Your task to perform on an android device: Open calendar and show me the fourth week of next month Image 0: 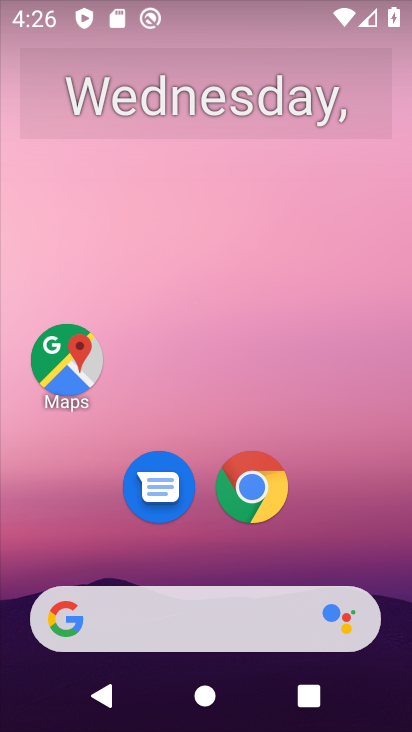
Step 0: press home button
Your task to perform on an android device: Open calendar and show me the fourth week of next month Image 1: 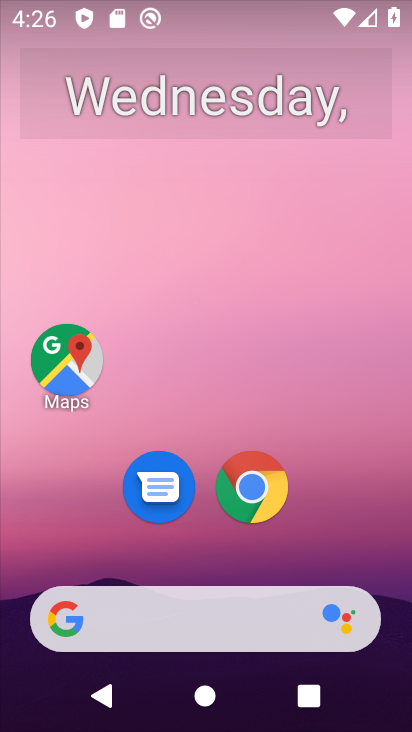
Step 1: press home button
Your task to perform on an android device: Open calendar and show me the fourth week of next month Image 2: 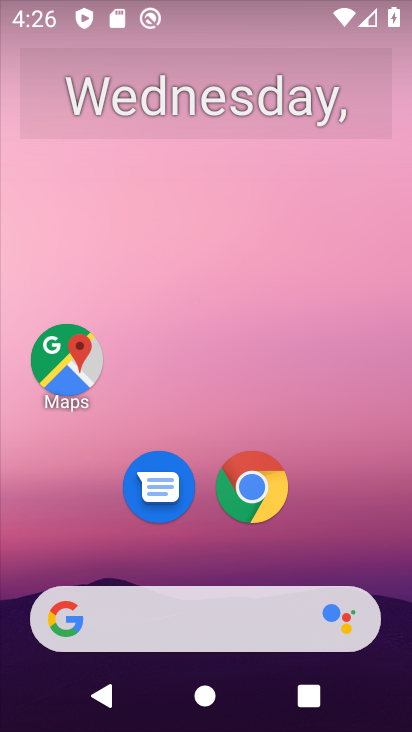
Step 2: drag from (226, 555) to (219, 122)
Your task to perform on an android device: Open calendar and show me the fourth week of next month Image 3: 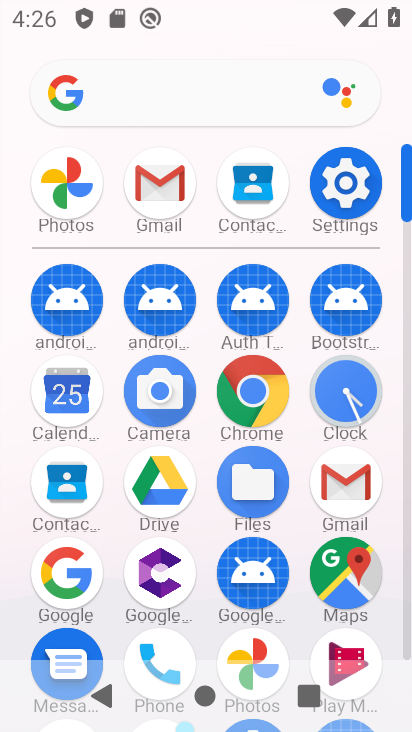
Step 3: click (71, 383)
Your task to perform on an android device: Open calendar and show me the fourth week of next month Image 4: 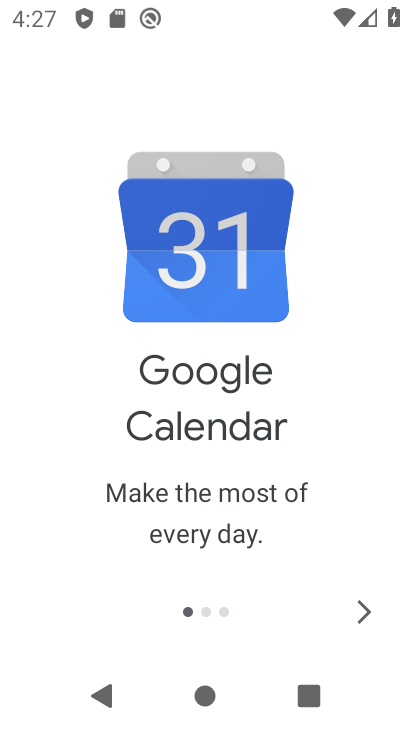
Step 4: click (357, 602)
Your task to perform on an android device: Open calendar and show me the fourth week of next month Image 5: 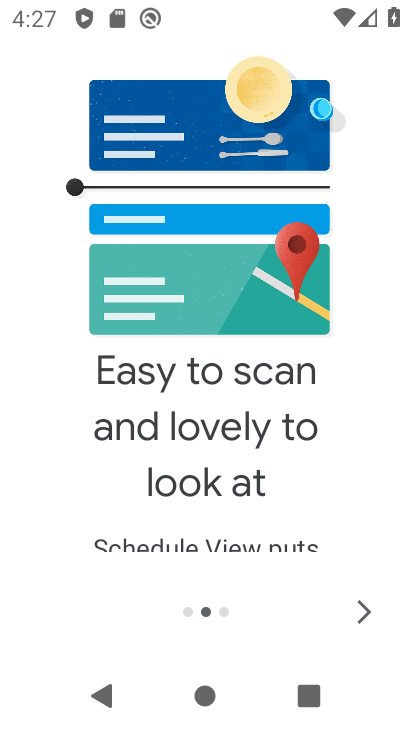
Step 5: click (357, 602)
Your task to perform on an android device: Open calendar and show me the fourth week of next month Image 6: 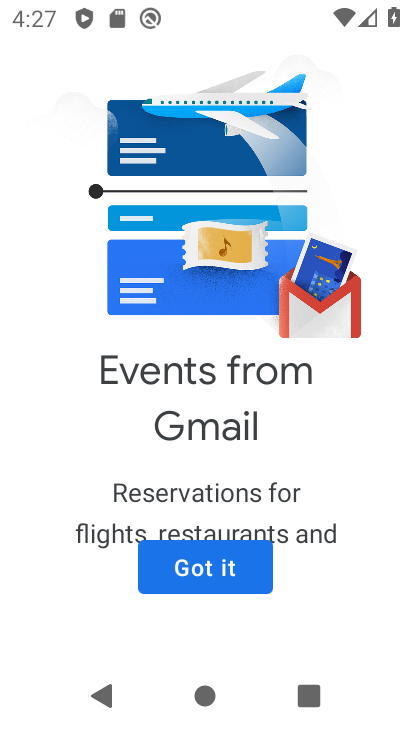
Step 6: click (148, 583)
Your task to perform on an android device: Open calendar and show me the fourth week of next month Image 7: 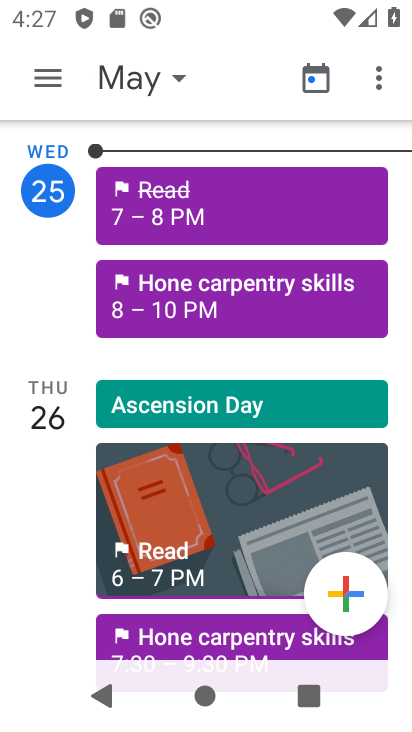
Step 7: click (171, 74)
Your task to perform on an android device: Open calendar and show me the fourth week of next month Image 8: 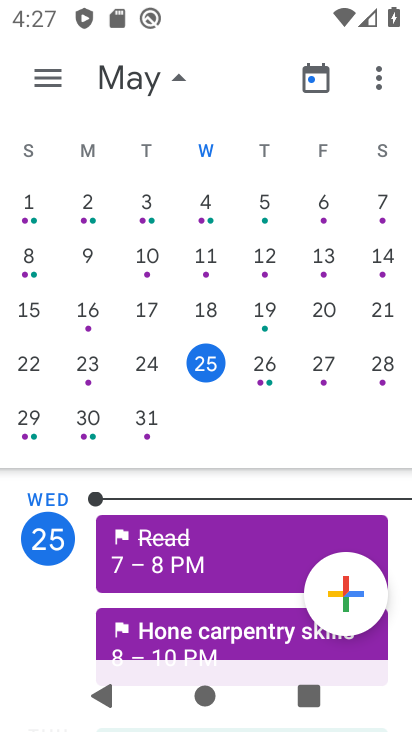
Step 8: drag from (377, 319) to (1, 309)
Your task to perform on an android device: Open calendar and show me the fourth week of next month Image 9: 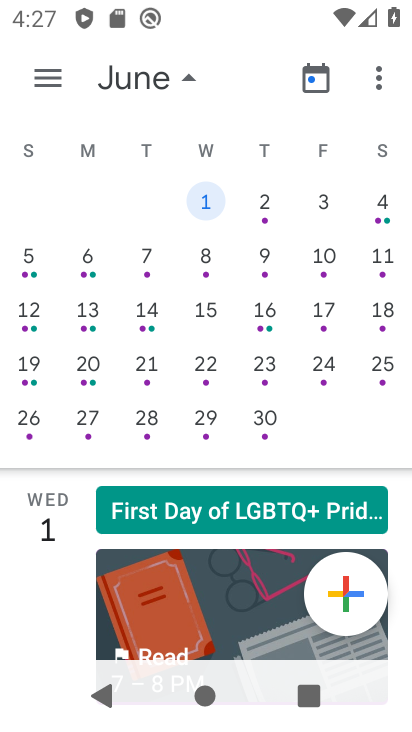
Step 9: click (29, 367)
Your task to perform on an android device: Open calendar and show me the fourth week of next month Image 10: 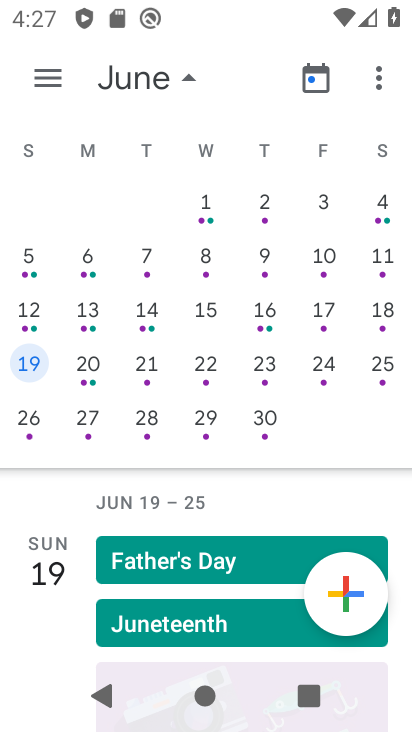
Step 10: click (190, 85)
Your task to perform on an android device: Open calendar and show me the fourth week of next month Image 11: 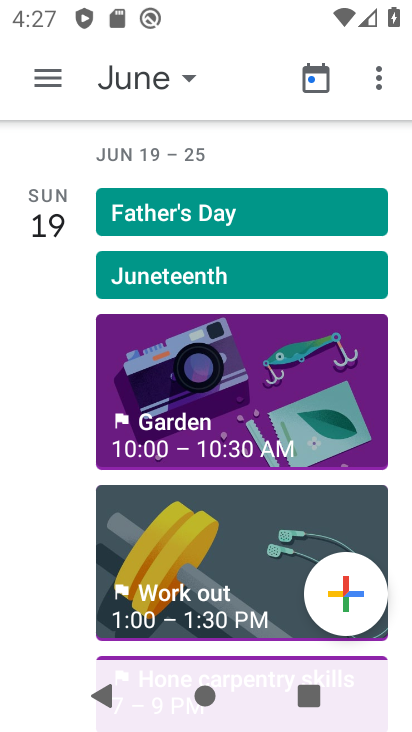
Step 11: task complete